Your task to perform on an android device: Open Google Chrome and click the shortcut for Amazon.com Image 0: 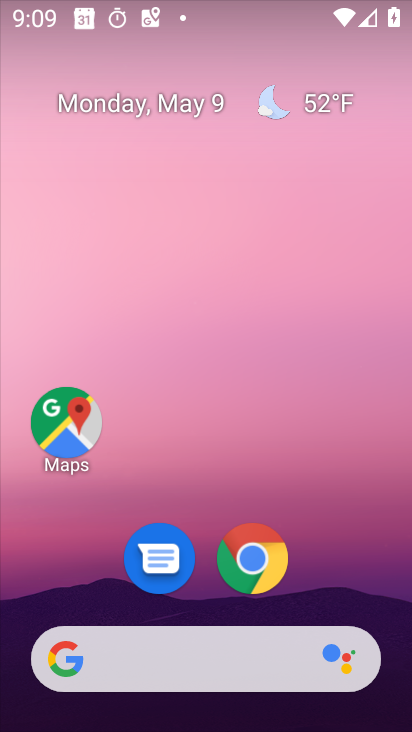
Step 0: click (259, 558)
Your task to perform on an android device: Open Google Chrome and click the shortcut for Amazon.com Image 1: 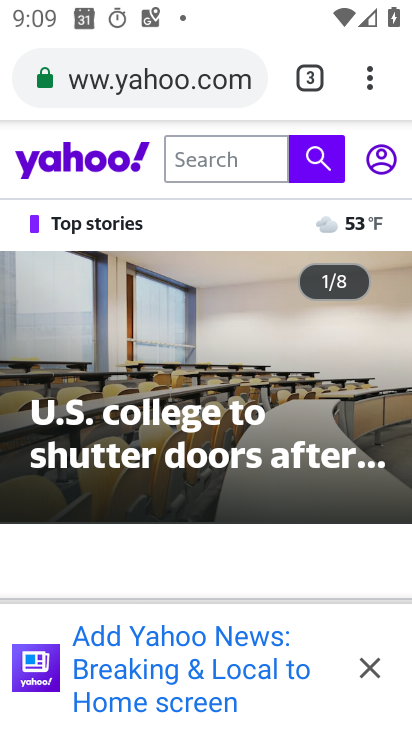
Step 1: click (318, 70)
Your task to perform on an android device: Open Google Chrome and click the shortcut for Amazon.com Image 2: 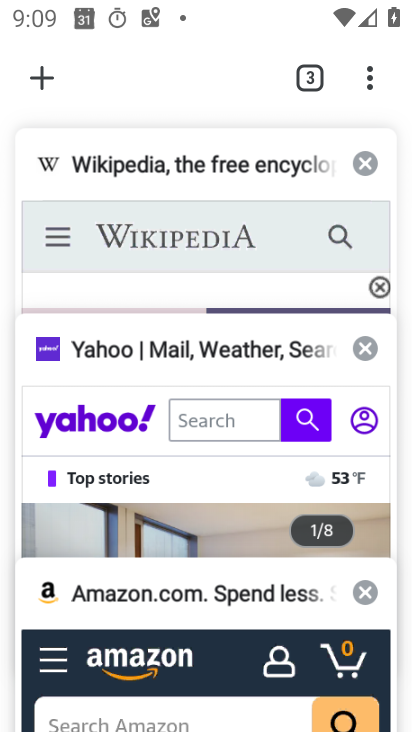
Step 2: click (131, 585)
Your task to perform on an android device: Open Google Chrome and click the shortcut for Amazon.com Image 3: 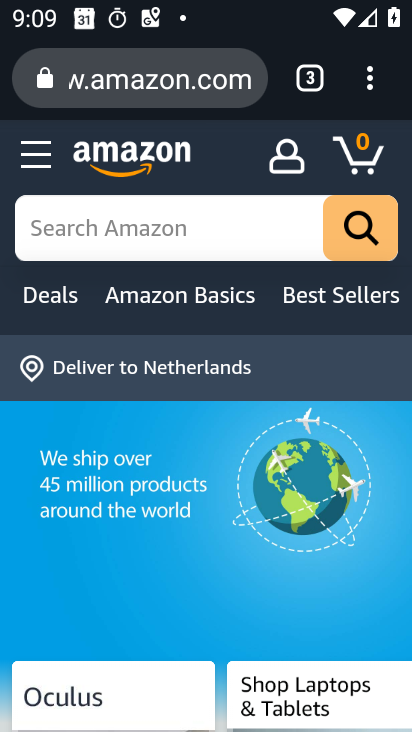
Step 3: task complete